Your task to perform on an android device: change the clock display to analog Image 0: 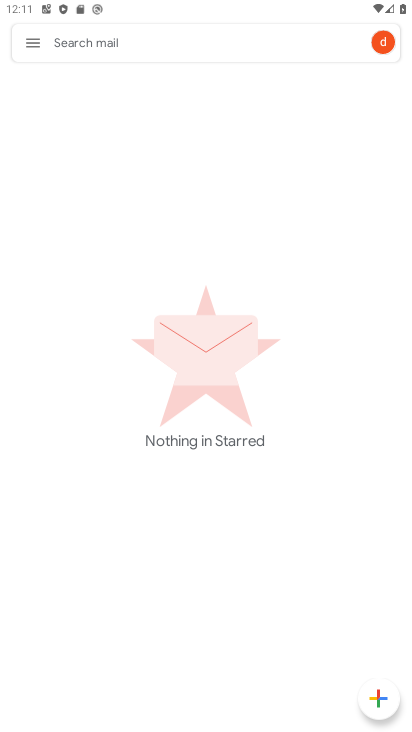
Step 0: press back button
Your task to perform on an android device: change the clock display to analog Image 1: 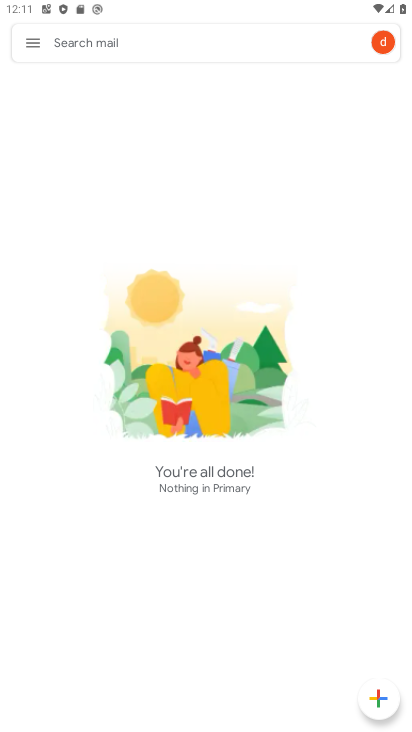
Step 1: press back button
Your task to perform on an android device: change the clock display to analog Image 2: 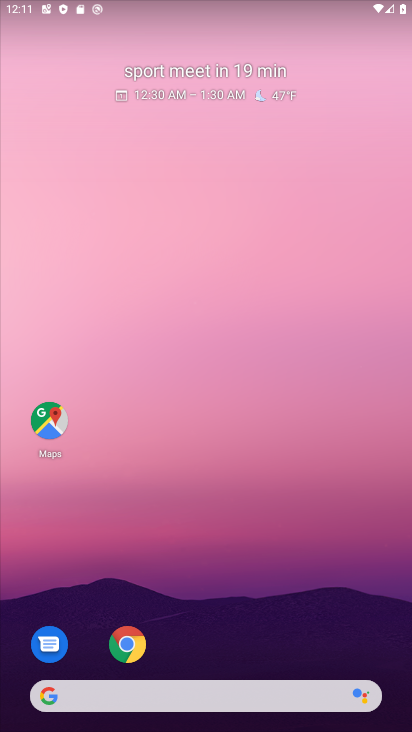
Step 2: drag from (260, 558) to (312, 145)
Your task to perform on an android device: change the clock display to analog Image 3: 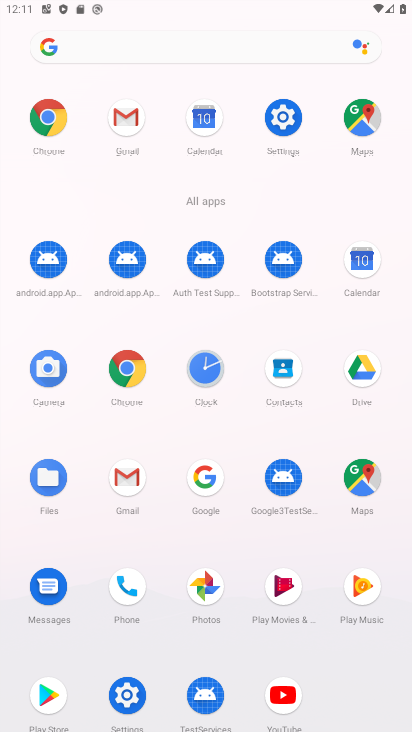
Step 3: click (193, 361)
Your task to perform on an android device: change the clock display to analog Image 4: 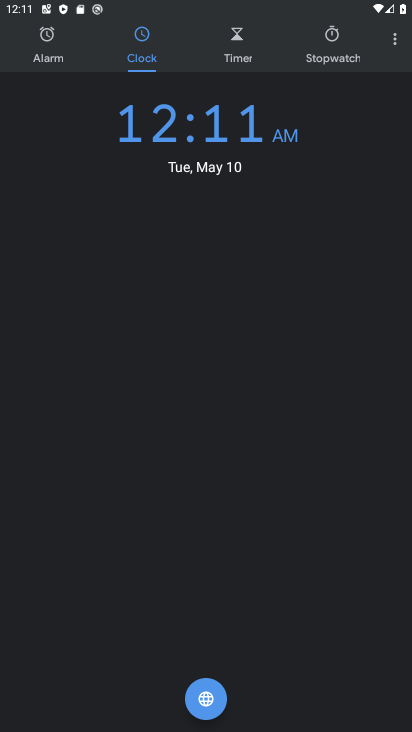
Step 4: click (395, 35)
Your task to perform on an android device: change the clock display to analog Image 5: 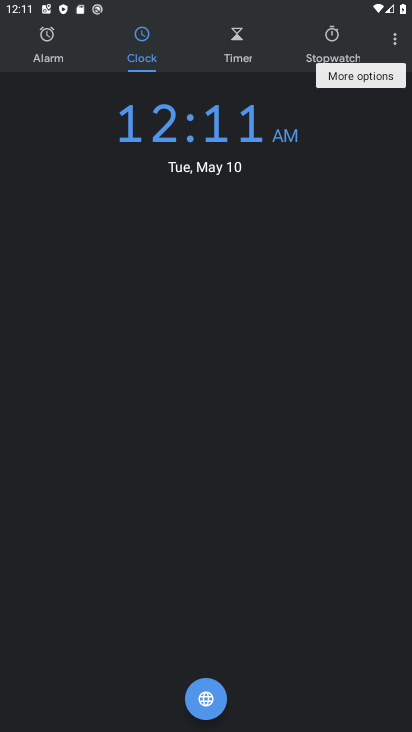
Step 5: click (399, 38)
Your task to perform on an android device: change the clock display to analog Image 6: 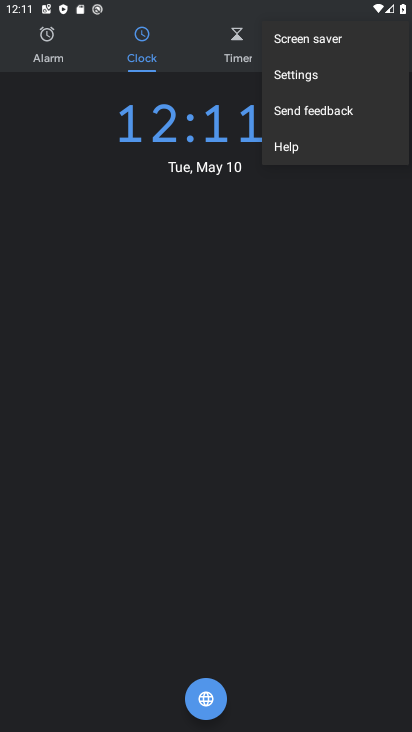
Step 6: click (312, 78)
Your task to perform on an android device: change the clock display to analog Image 7: 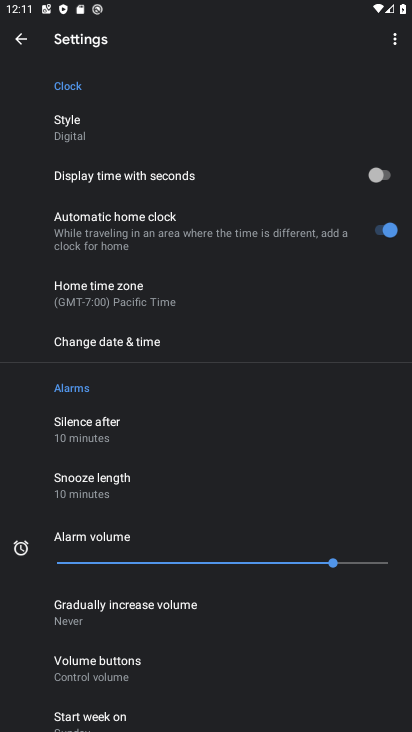
Step 7: click (72, 124)
Your task to perform on an android device: change the clock display to analog Image 8: 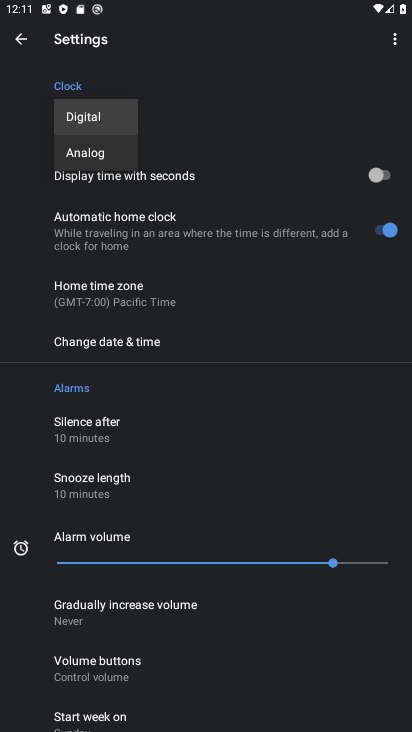
Step 8: click (110, 155)
Your task to perform on an android device: change the clock display to analog Image 9: 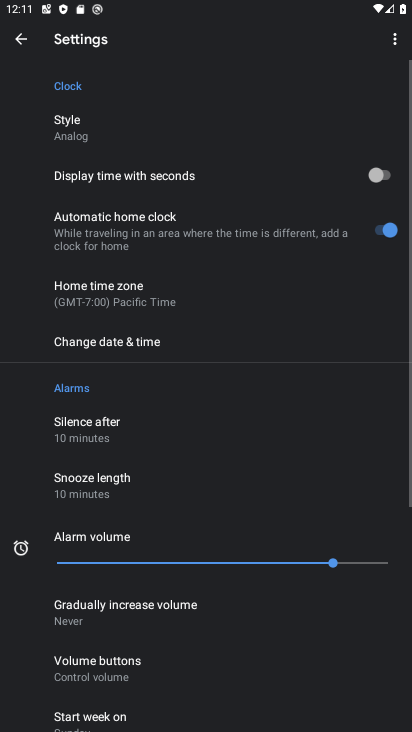
Step 9: task complete